Your task to perform on an android device: delete browsing data in the chrome app Image 0: 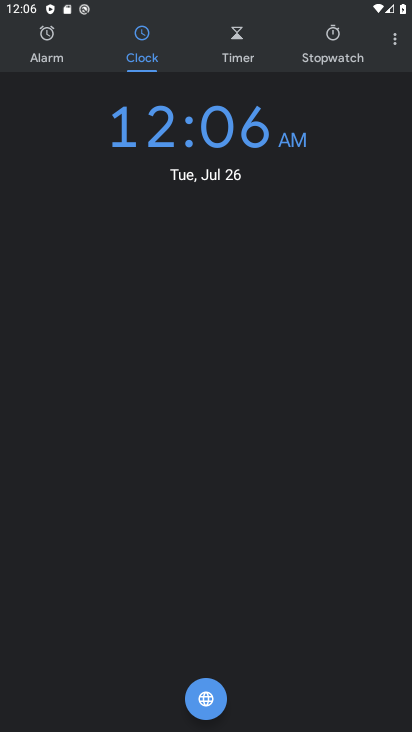
Step 0: press home button
Your task to perform on an android device: delete browsing data in the chrome app Image 1: 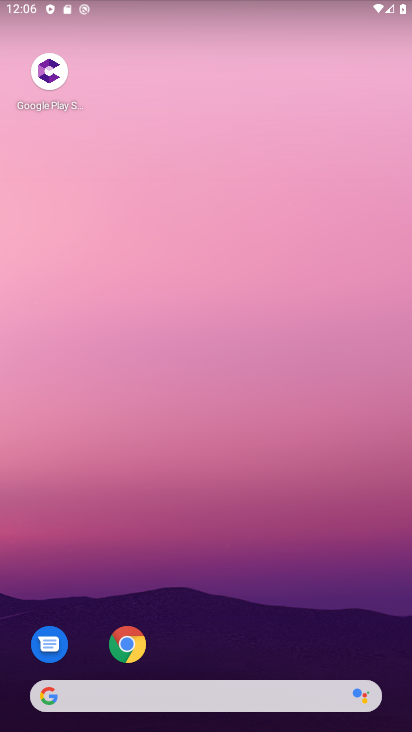
Step 1: drag from (250, 647) to (243, 40)
Your task to perform on an android device: delete browsing data in the chrome app Image 2: 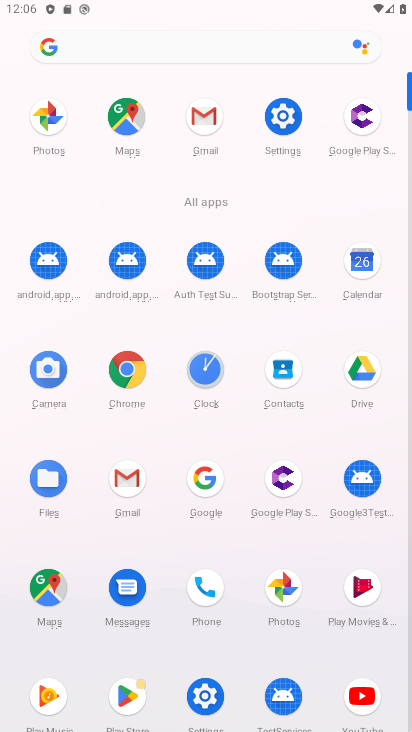
Step 2: click (132, 368)
Your task to perform on an android device: delete browsing data in the chrome app Image 3: 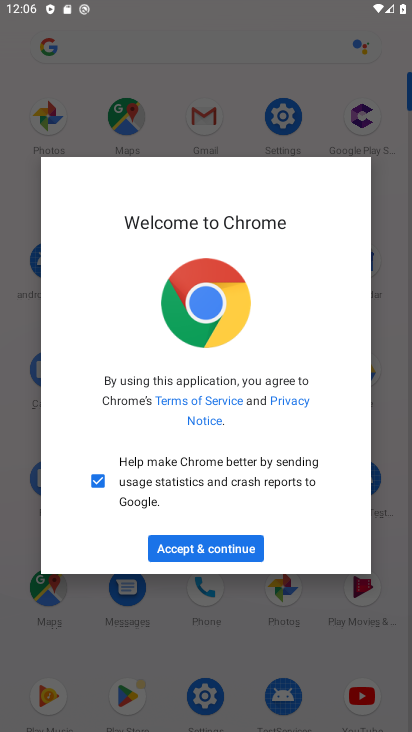
Step 3: click (202, 549)
Your task to perform on an android device: delete browsing data in the chrome app Image 4: 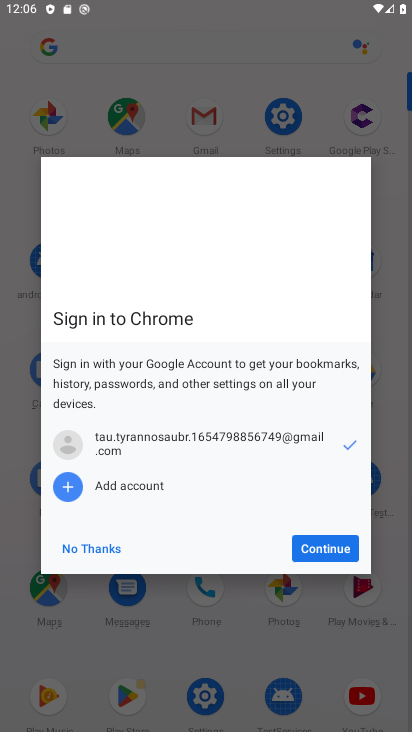
Step 4: click (338, 551)
Your task to perform on an android device: delete browsing data in the chrome app Image 5: 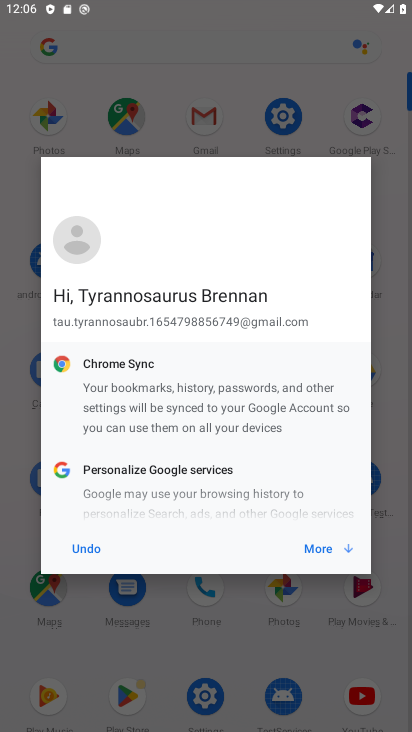
Step 5: click (338, 551)
Your task to perform on an android device: delete browsing data in the chrome app Image 6: 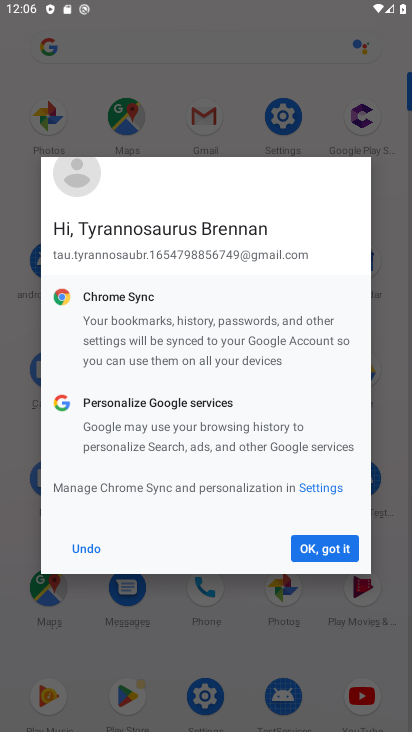
Step 6: click (338, 551)
Your task to perform on an android device: delete browsing data in the chrome app Image 7: 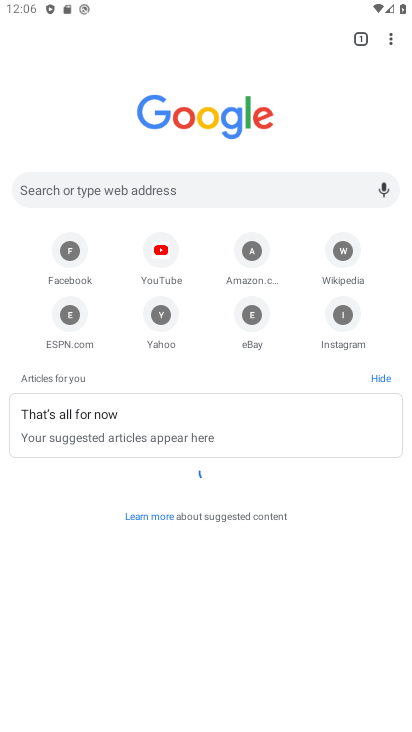
Step 7: click (396, 37)
Your task to perform on an android device: delete browsing data in the chrome app Image 8: 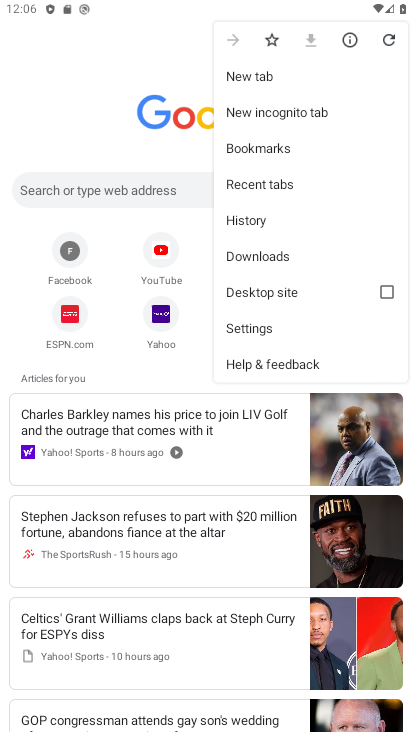
Step 8: click (288, 224)
Your task to perform on an android device: delete browsing data in the chrome app Image 9: 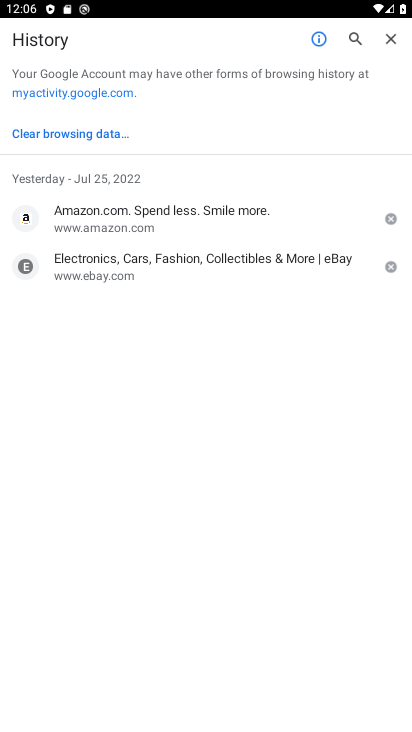
Step 9: click (118, 137)
Your task to perform on an android device: delete browsing data in the chrome app Image 10: 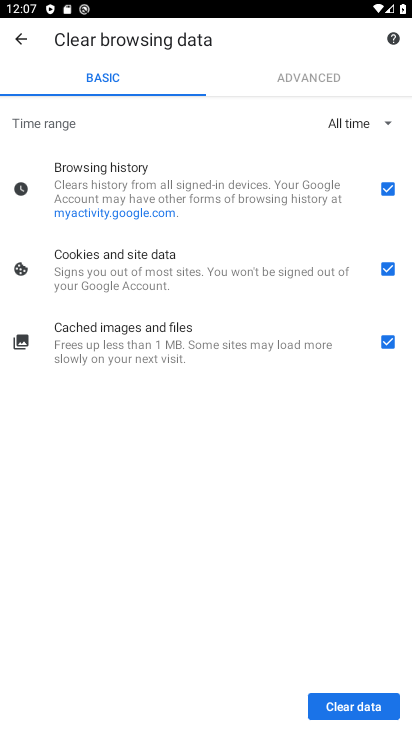
Step 10: click (328, 703)
Your task to perform on an android device: delete browsing data in the chrome app Image 11: 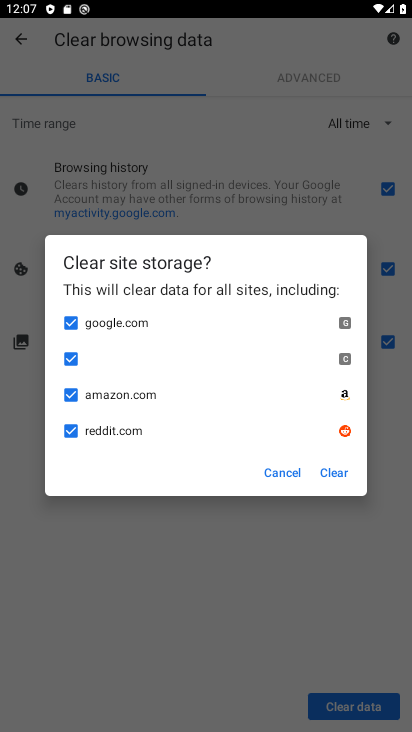
Step 11: click (329, 483)
Your task to perform on an android device: delete browsing data in the chrome app Image 12: 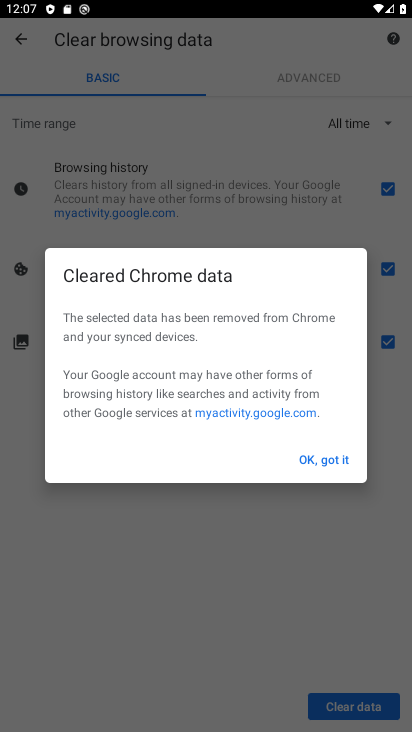
Step 12: click (326, 465)
Your task to perform on an android device: delete browsing data in the chrome app Image 13: 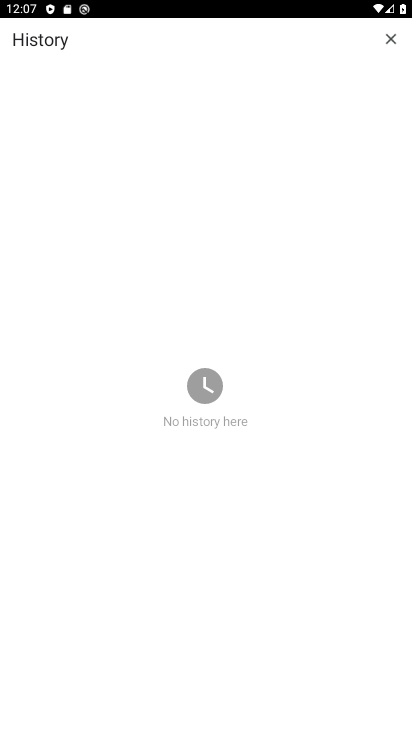
Step 13: task complete